Your task to perform on an android device: Go to internet settings Image 0: 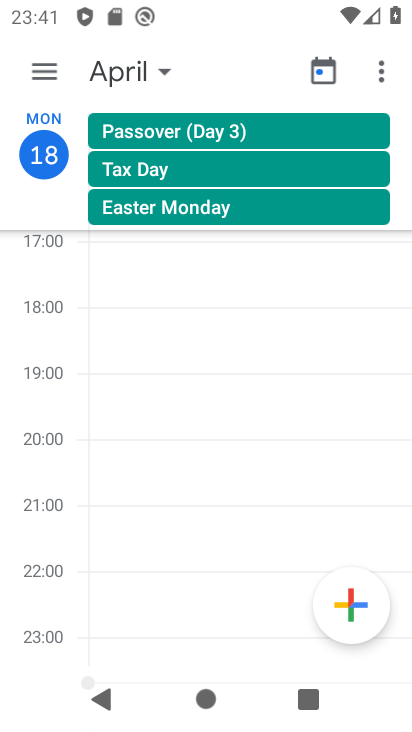
Step 0: press home button
Your task to perform on an android device: Go to internet settings Image 1: 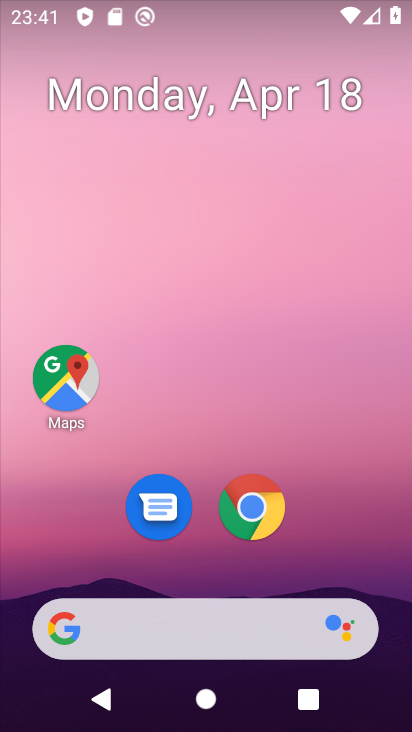
Step 1: drag from (308, 514) to (385, 71)
Your task to perform on an android device: Go to internet settings Image 2: 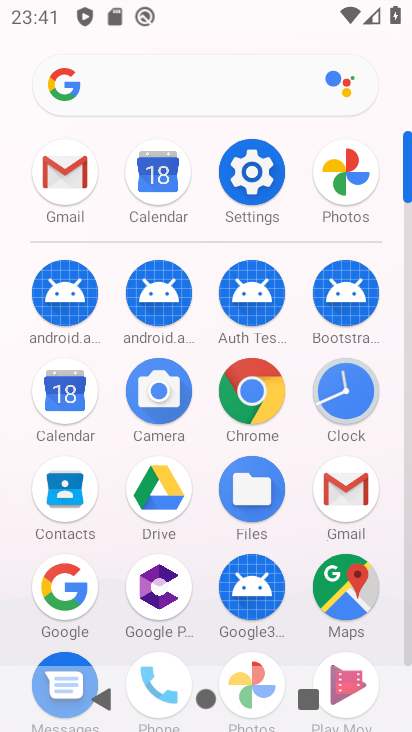
Step 2: click (247, 159)
Your task to perform on an android device: Go to internet settings Image 3: 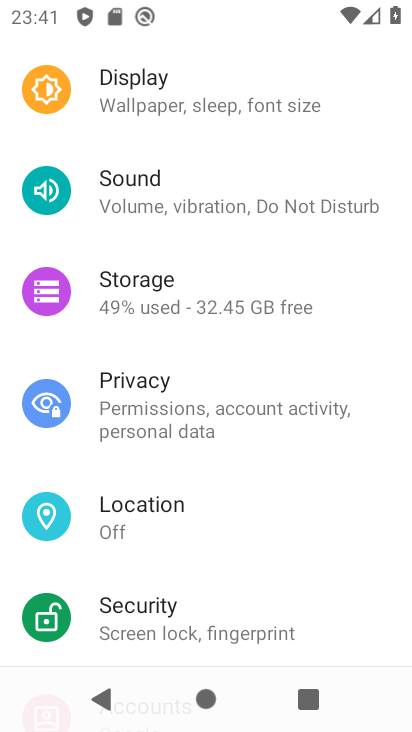
Step 3: drag from (251, 249) to (186, 573)
Your task to perform on an android device: Go to internet settings Image 4: 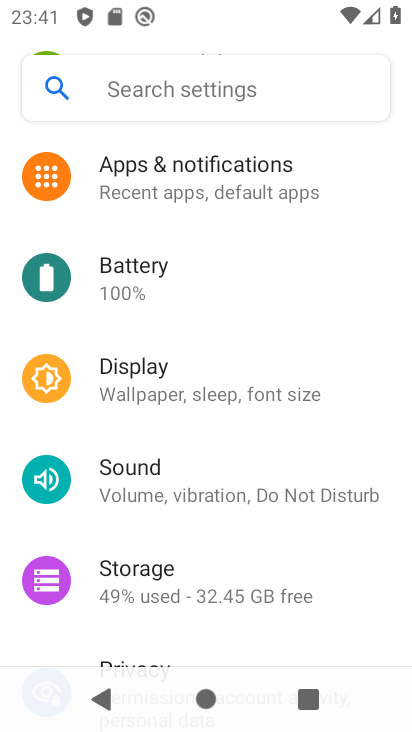
Step 4: drag from (272, 217) to (270, 492)
Your task to perform on an android device: Go to internet settings Image 5: 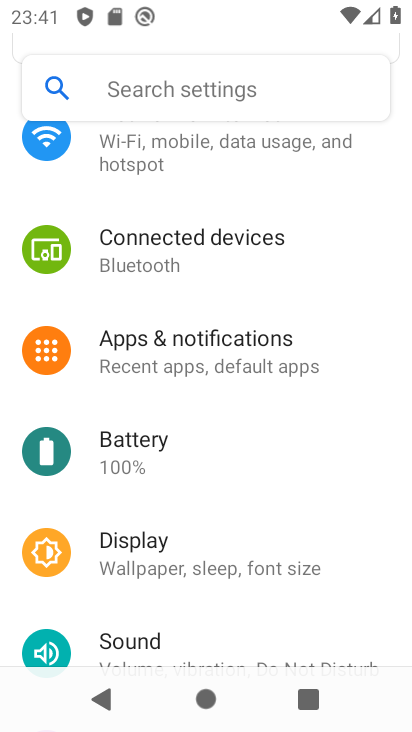
Step 5: drag from (271, 260) to (251, 547)
Your task to perform on an android device: Go to internet settings Image 6: 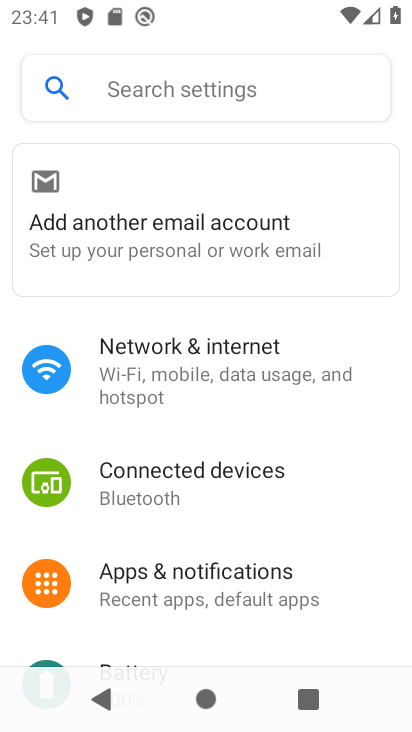
Step 6: click (257, 365)
Your task to perform on an android device: Go to internet settings Image 7: 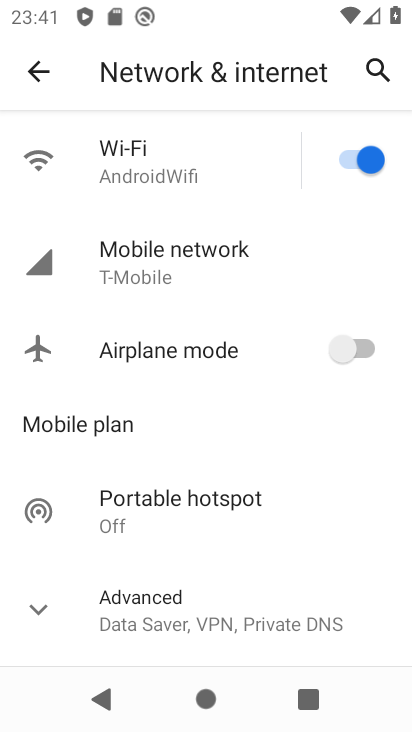
Step 7: task complete